Your task to perform on an android device: turn on the 12-hour format for clock Image 0: 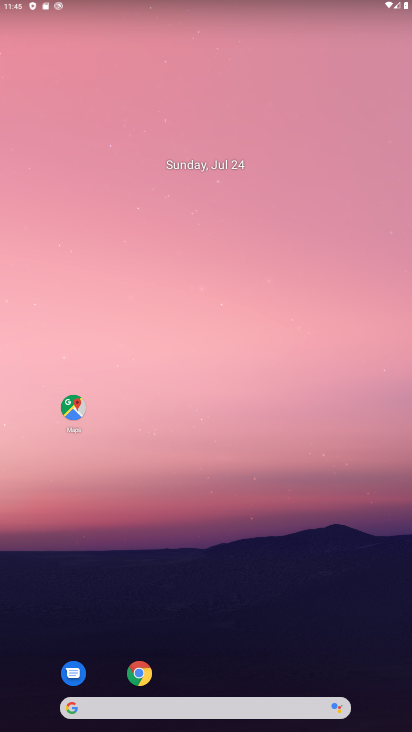
Step 0: drag from (165, 707) to (270, 90)
Your task to perform on an android device: turn on the 12-hour format for clock Image 1: 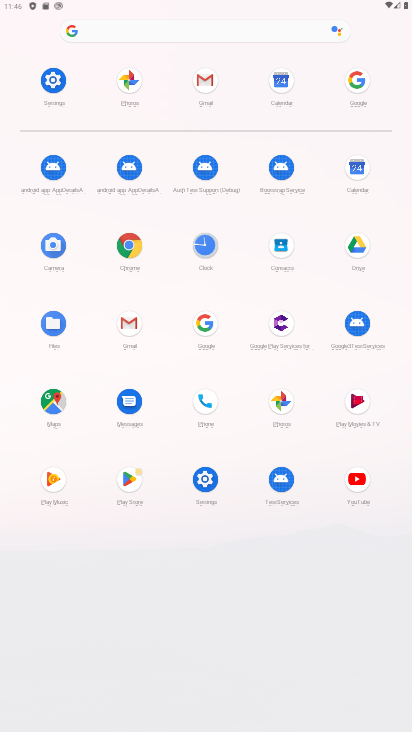
Step 1: click (206, 246)
Your task to perform on an android device: turn on the 12-hour format for clock Image 2: 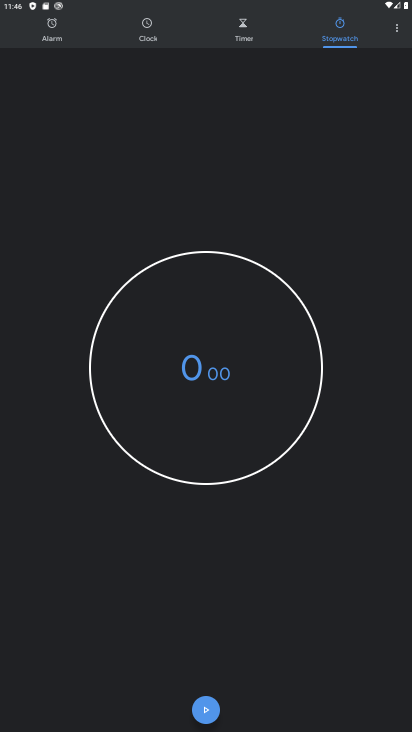
Step 2: click (399, 31)
Your task to perform on an android device: turn on the 12-hour format for clock Image 3: 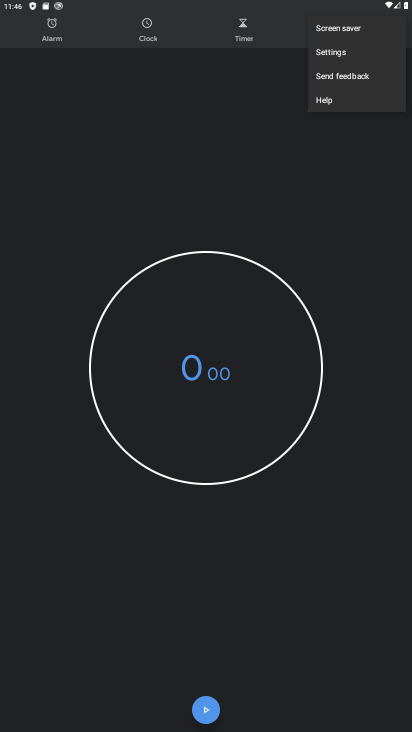
Step 3: click (341, 56)
Your task to perform on an android device: turn on the 12-hour format for clock Image 4: 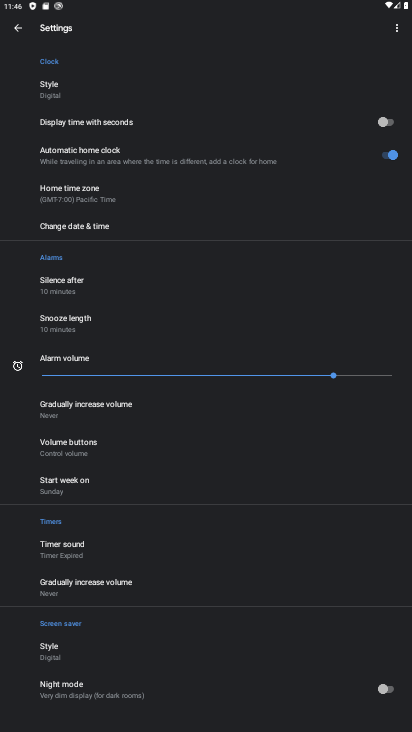
Step 4: click (96, 227)
Your task to perform on an android device: turn on the 12-hour format for clock Image 5: 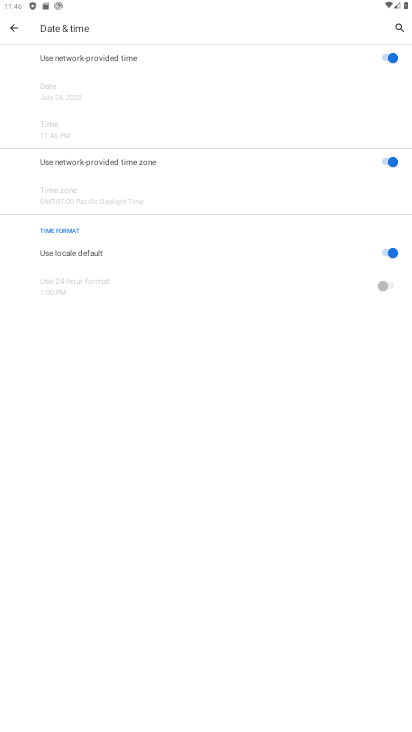
Step 5: task complete